Your task to perform on an android device: Show me popular videos on Youtube Image 0: 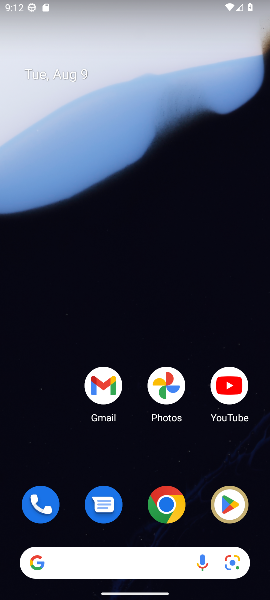
Step 0: click (228, 388)
Your task to perform on an android device: Show me popular videos on Youtube Image 1: 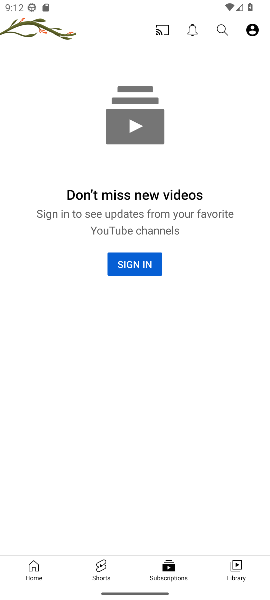
Step 1: click (99, 566)
Your task to perform on an android device: Show me popular videos on Youtube Image 2: 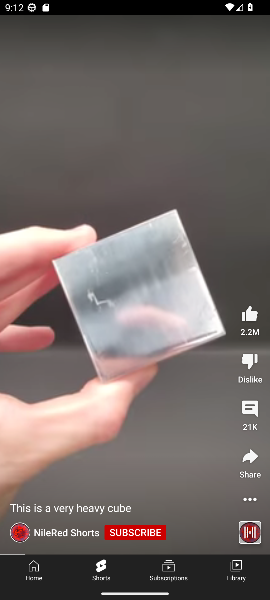
Step 2: task complete